Your task to perform on an android device: Go to display settings Image 0: 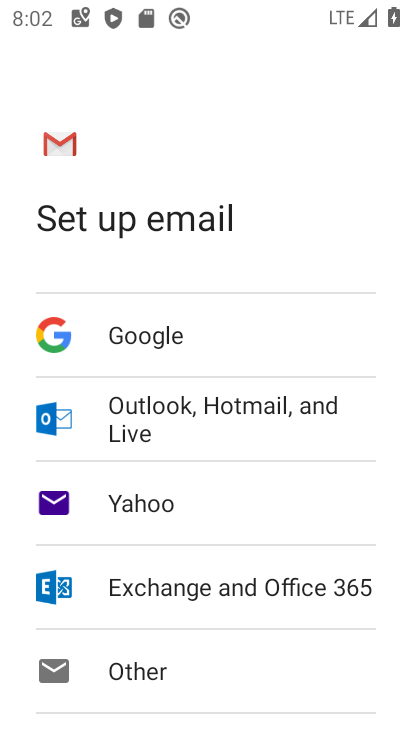
Step 0: press home button
Your task to perform on an android device: Go to display settings Image 1: 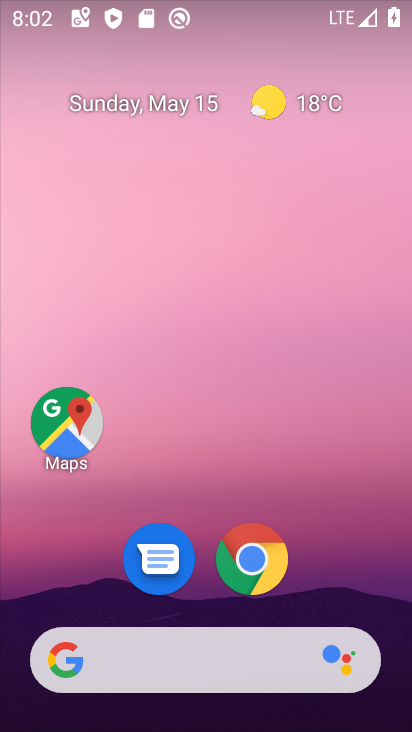
Step 1: drag from (248, 140) to (220, 26)
Your task to perform on an android device: Go to display settings Image 2: 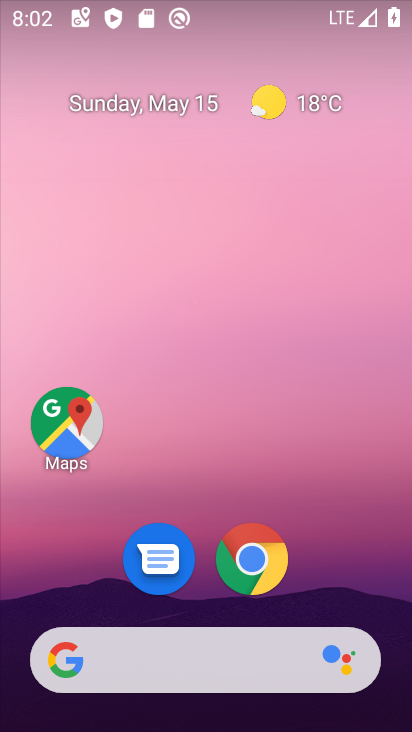
Step 2: drag from (191, 465) to (147, 29)
Your task to perform on an android device: Go to display settings Image 3: 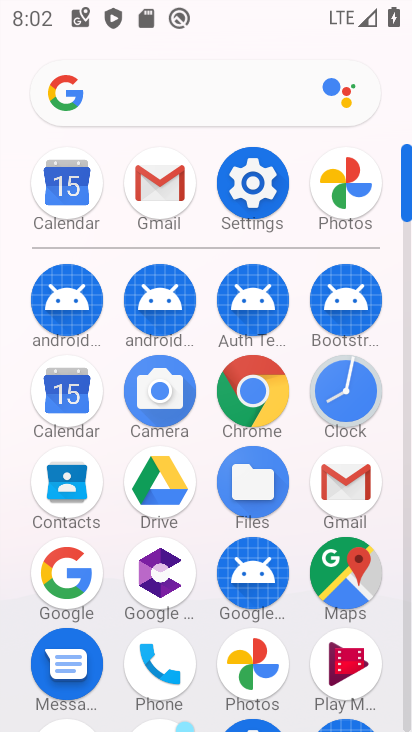
Step 3: click (254, 181)
Your task to perform on an android device: Go to display settings Image 4: 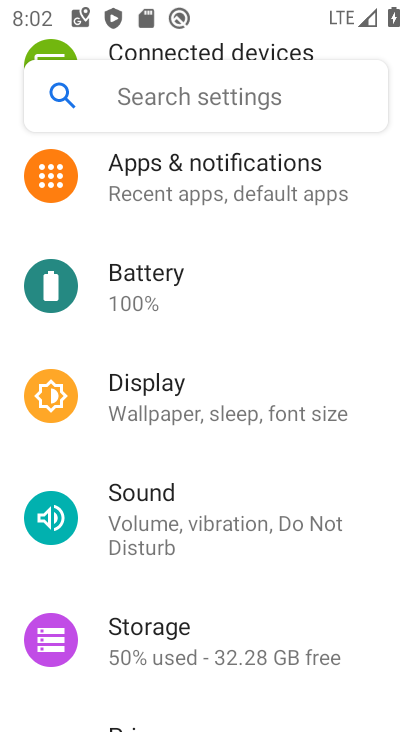
Step 4: click (148, 389)
Your task to perform on an android device: Go to display settings Image 5: 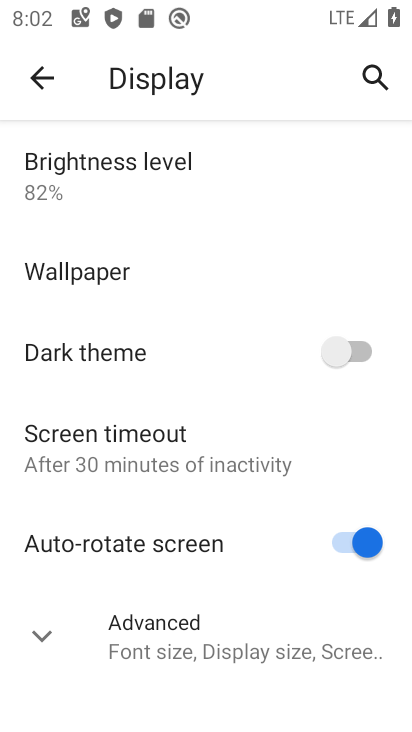
Step 5: task complete